Your task to perform on an android device: Open Google Maps Image 0: 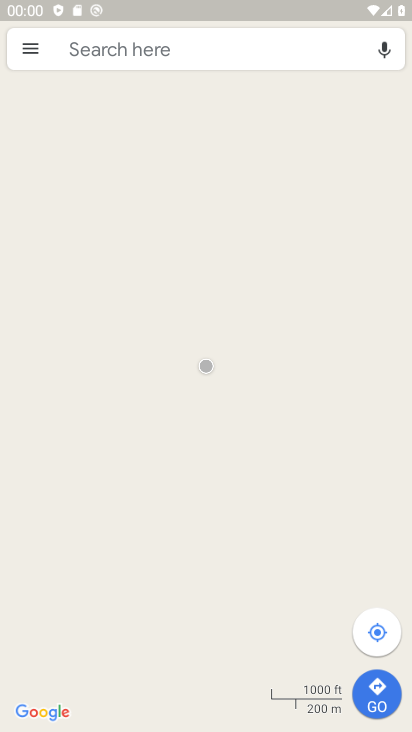
Step 0: press home button
Your task to perform on an android device: Open Google Maps Image 1: 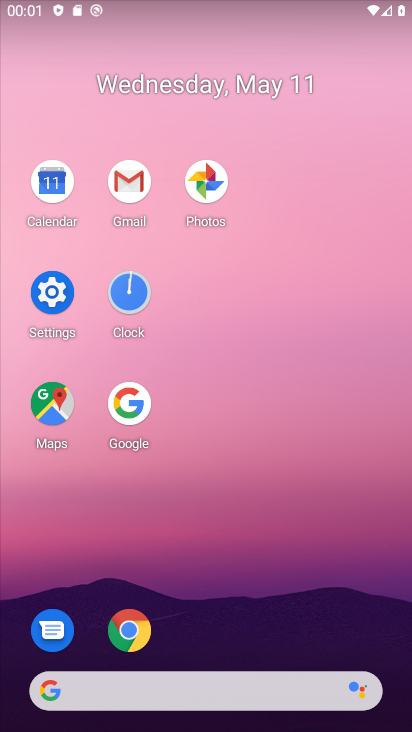
Step 1: click (54, 399)
Your task to perform on an android device: Open Google Maps Image 2: 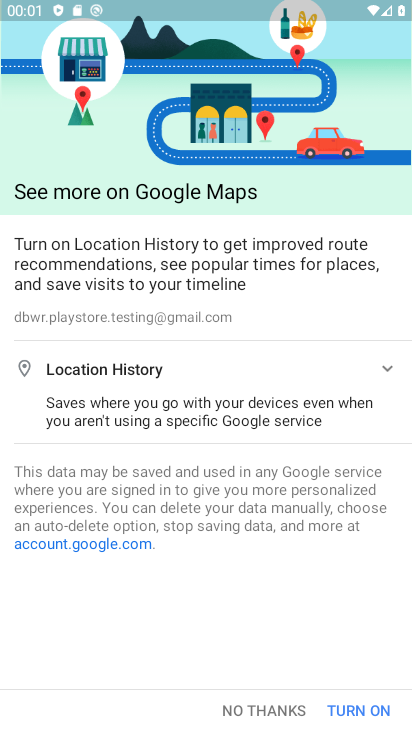
Step 2: task complete